Your task to perform on an android device: Open maps Image 0: 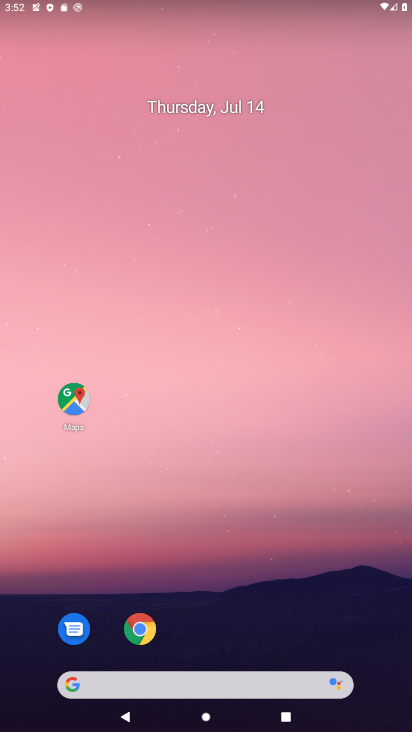
Step 0: click (71, 398)
Your task to perform on an android device: Open maps Image 1: 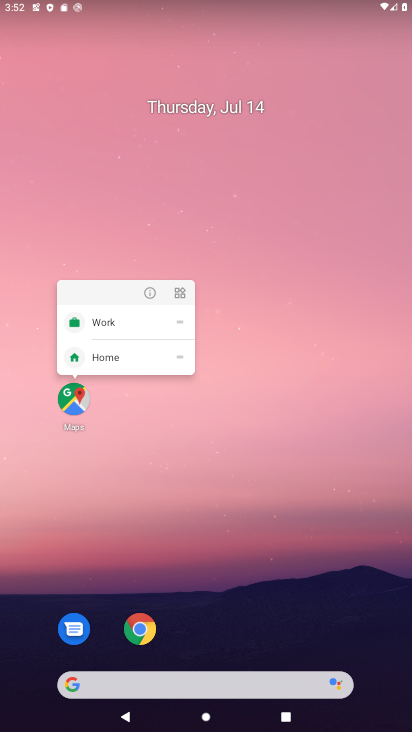
Step 1: click (66, 415)
Your task to perform on an android device: Open maps Image 2: 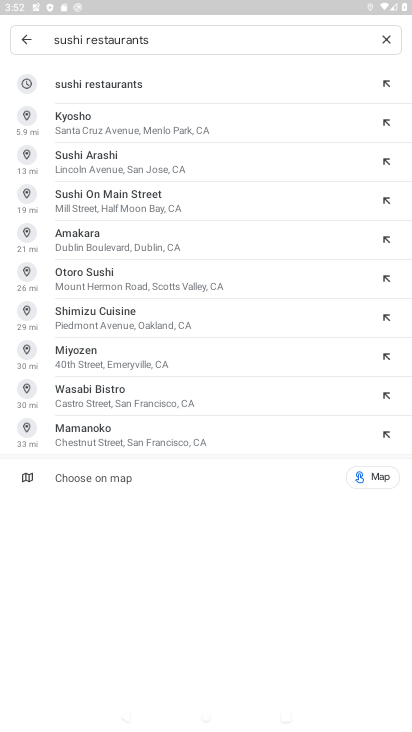
Step 2: click (26, 39)
Your task to perform on an android device: Open maps Image 3: 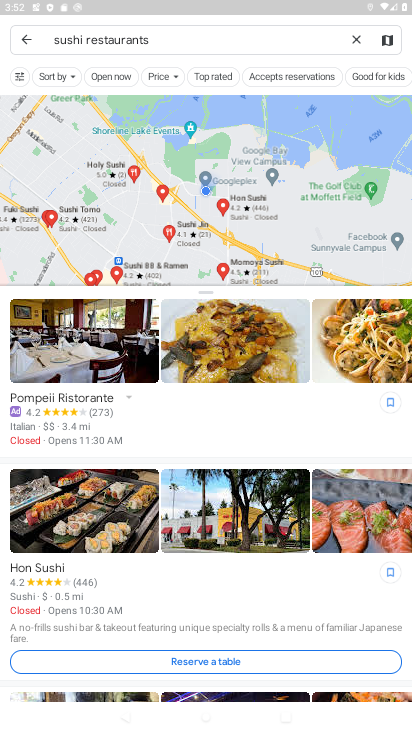
Step 3: click (26, 43)
Your task to perform on an android device: Open maps Image 4: 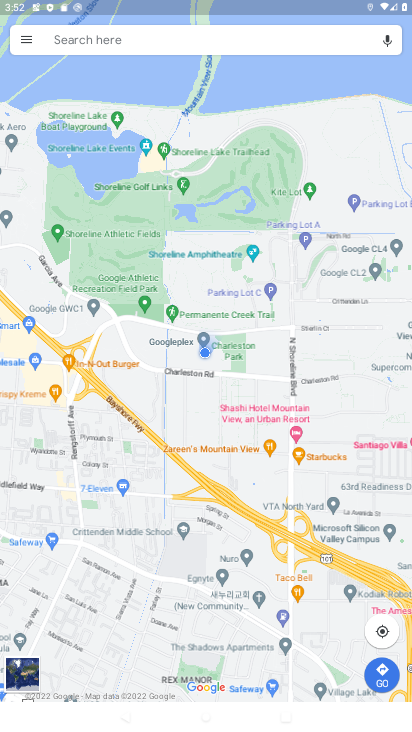
Step 4: task complete